Your task to perform on an android device: Search for sushi restaurants on Maps Image 0: 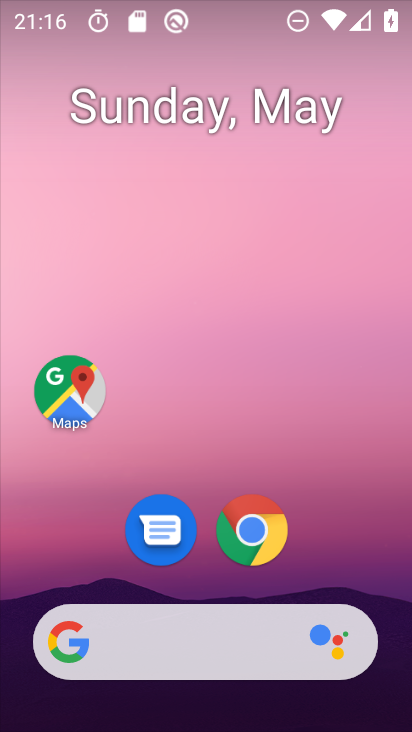
Step 0: drag from (291, 678) to (366, 83)
Your task to perform on an android device: Search for sushi restaurants on Maps Image 1: 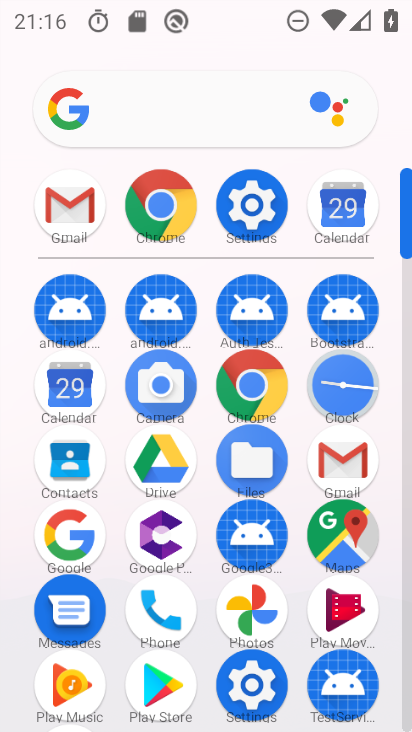
Step 1: click (326, 525)
Your task to perform on an android device: Search for sushi restaurants on Maps Image 2: 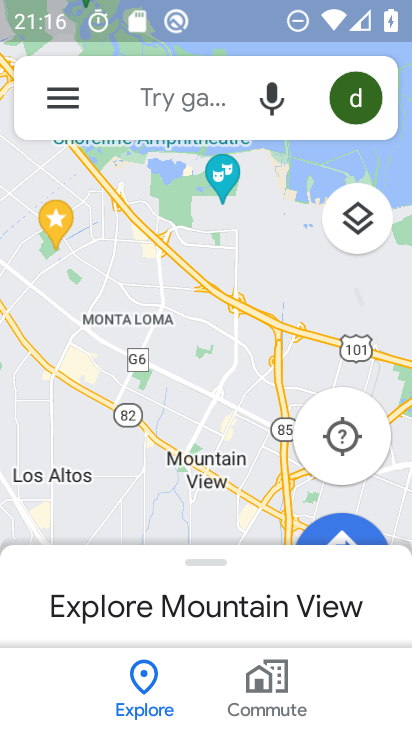
Step 2: click (127, 113)
Your task to perform on an android device: Search for sushi restaurants on Maps Image 3: 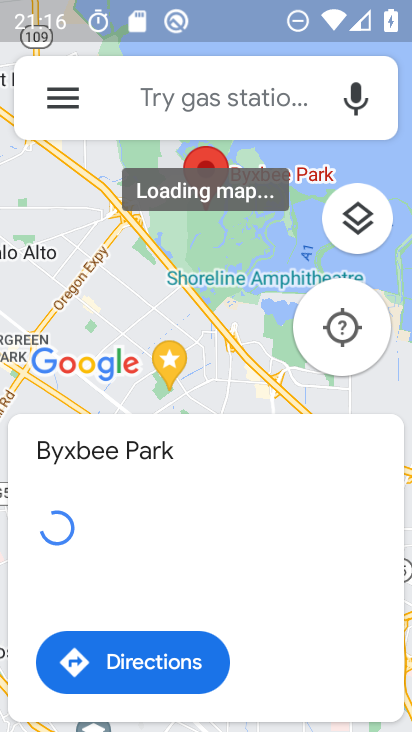
Step 3: click (194, 88)
Your task to perform on an android device: Search for sushi restaurants on Maps Image 4: 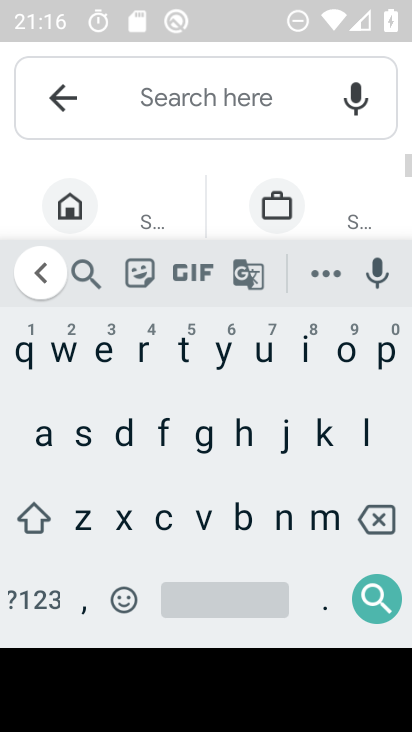
Step 4: click (77, 435)
Your task to perform on an android device: Search for sushi restaurants on Maps Image 5: 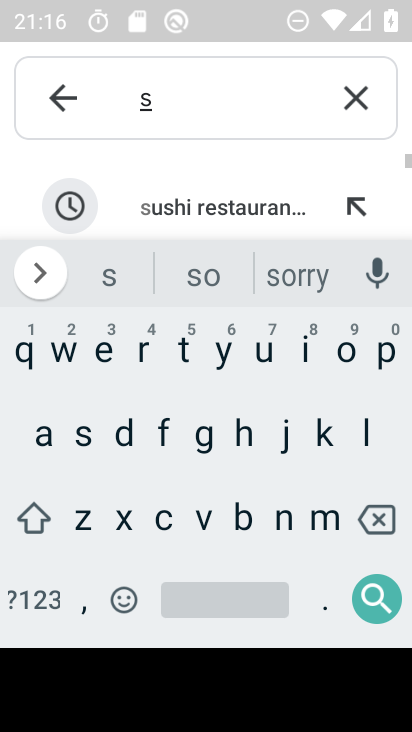
Step 5: click (229, 213)
Your task to perform on an android device: Search for sushi restaurants on Maps Image 6: 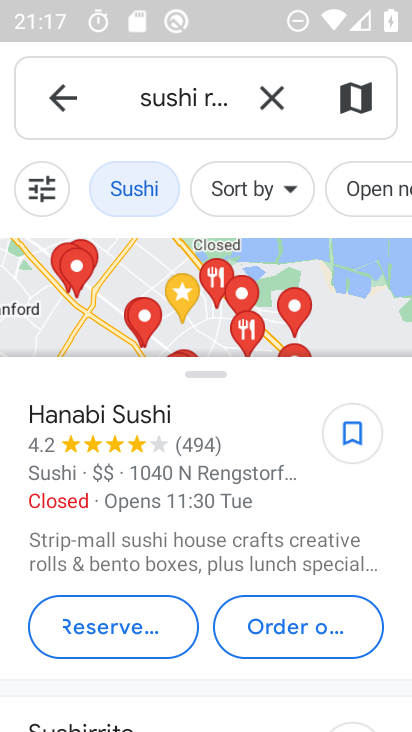
Step 6: task complete